Your task to perform on an android device: Go to Amazon Image 0: 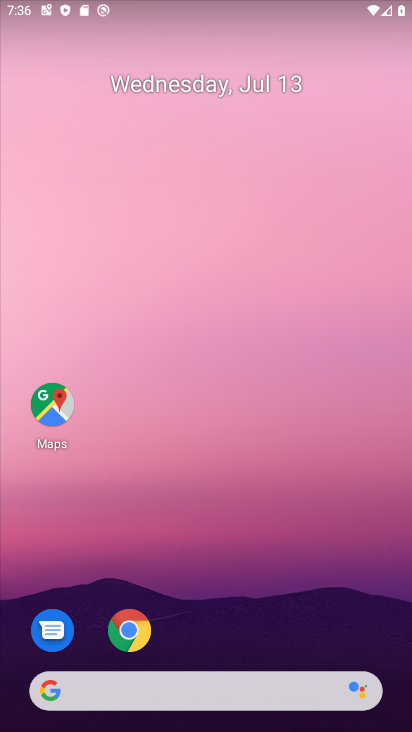
Step 0: drag from (339, 632) to (376, 179)
Your task to perform on an android device: Go to Amazon Image 1: 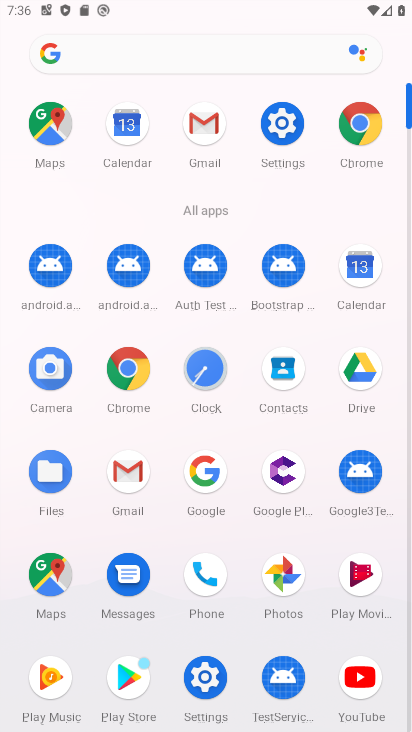
Step 1: click (129, 370)
Your task to perform on an android device: Go to Amazon Image 2: 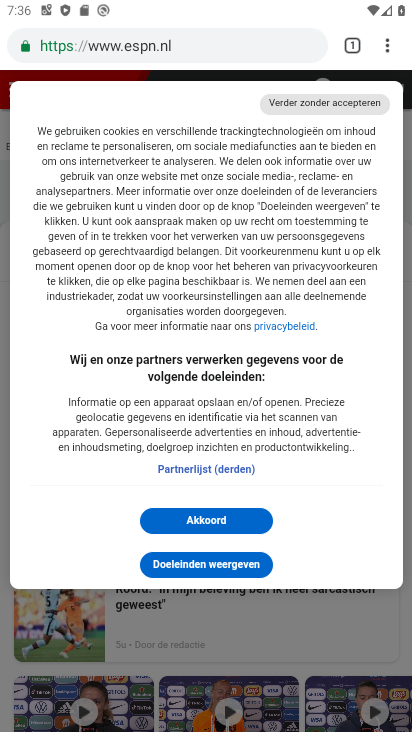
Step 2: click (219, 39)
Your task to perform on an android device: Go to Amazon Image 3: 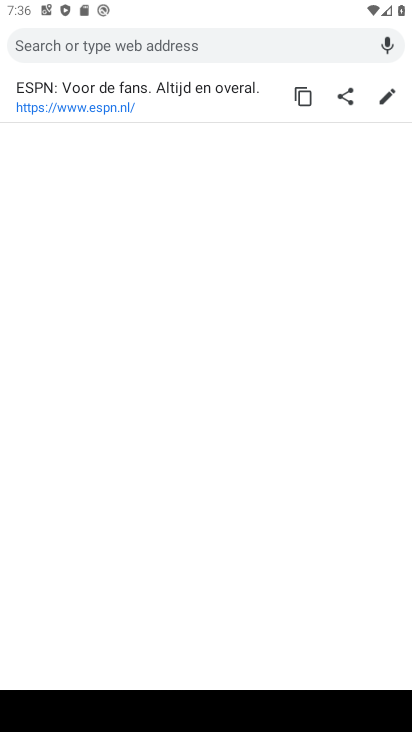
Step 3: type "amazon"
Your task to perform on an android device: Go to Amazon Image 4: 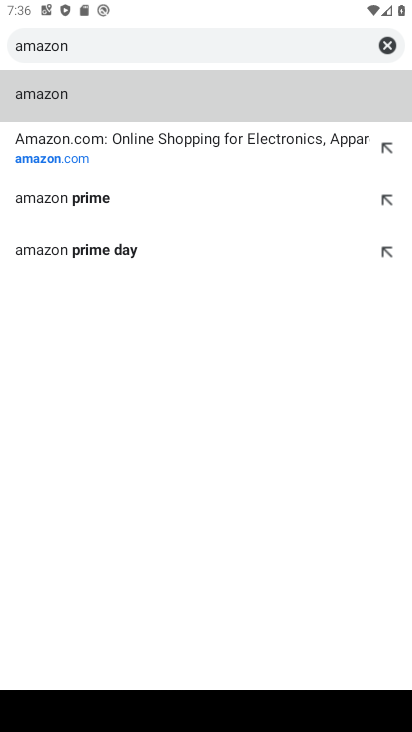
Step 4: click (73, 94)
Your task to perform on an android device: Go to Amazon Image 5: 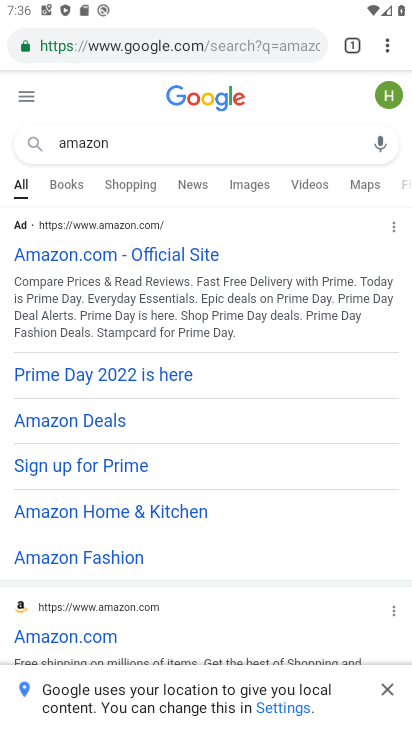
Step 5: task complete